Your task to perform on an android device: Show me recent news Image 0: 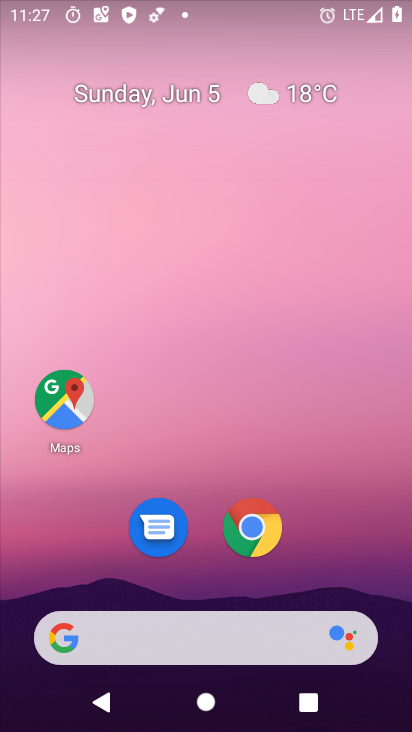
Step 0: drag from (290, 408) to (197, 6)
Your task to perform on an android device: Show me recent news Image 1: 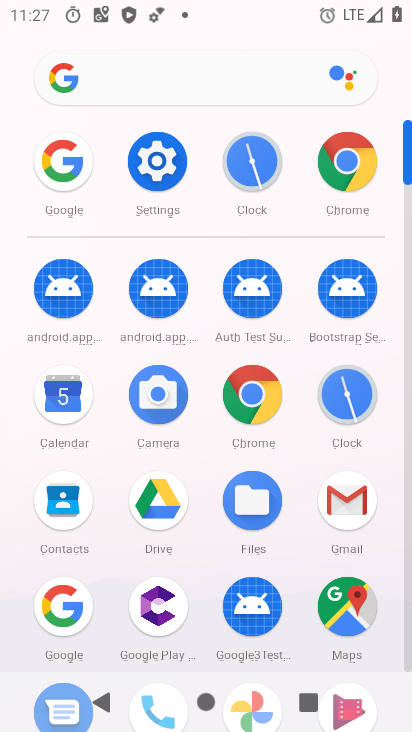
Step 1: click (56, 606)
Your task to perform on an android device: Show me recent news Image 2: 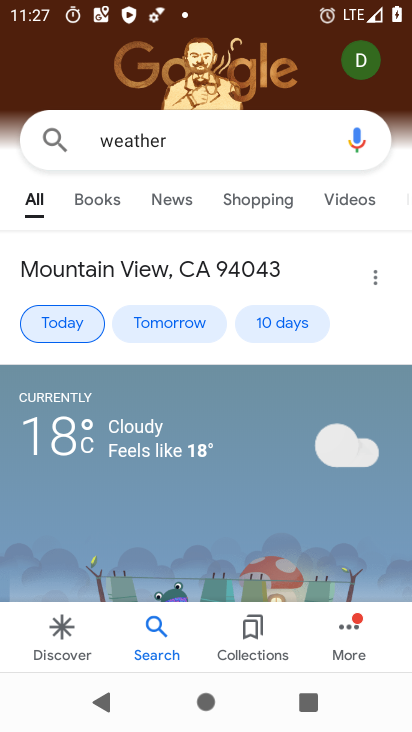
Step 2: click (197, 149)
Your task to perform on an android device: Show me recent news Image 3: 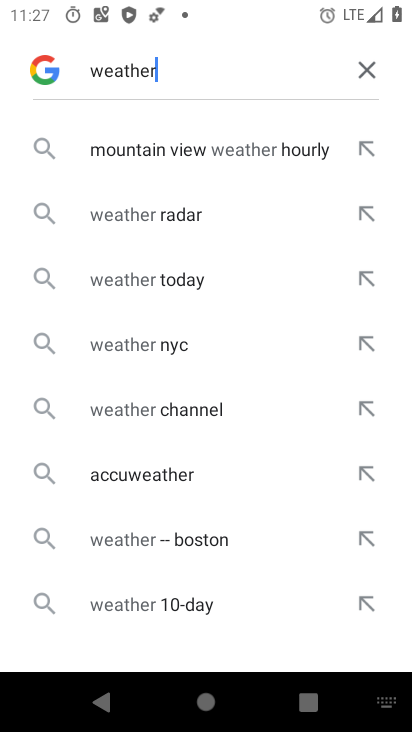
Step 3: click (365, 70)
Your task to perform on an android device: Show me recent news Image 4: 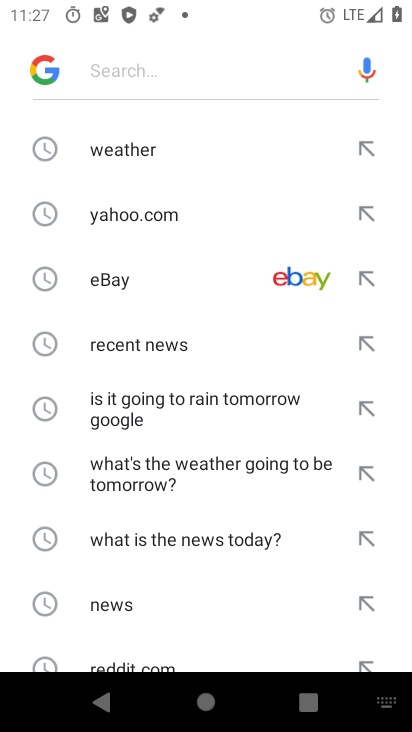
Step 4: click (177, 346)
Your task to perform on an android device: Show me recent news Image 5: 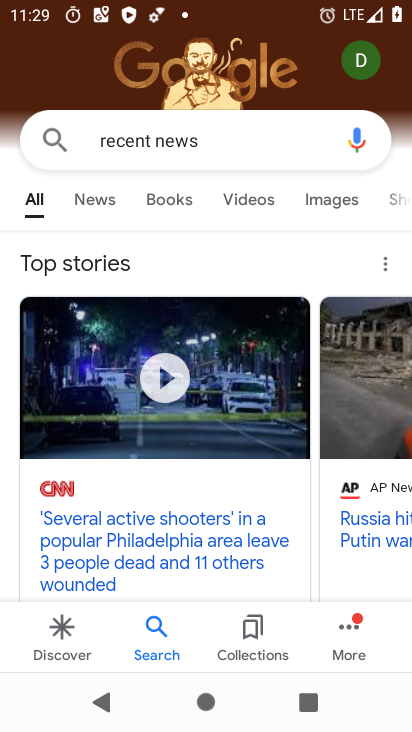
Step 5: task complete